Your task to perform on an android device: move an email to a new category in the gmail app Image 0: 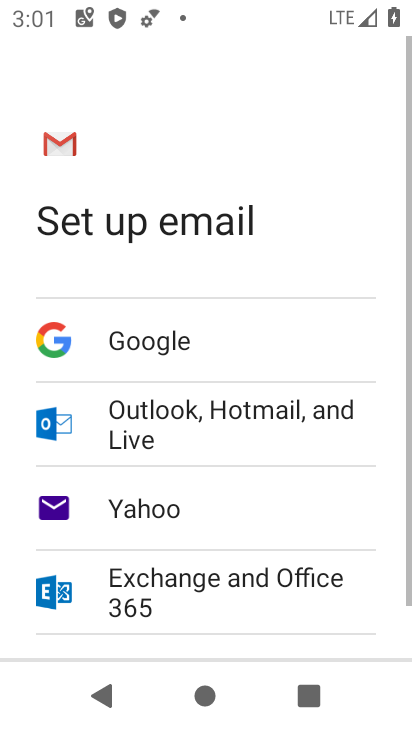
Step 0: press back button
Your task to perform on an android device: move an email to a new category in the gmail app Image 1: 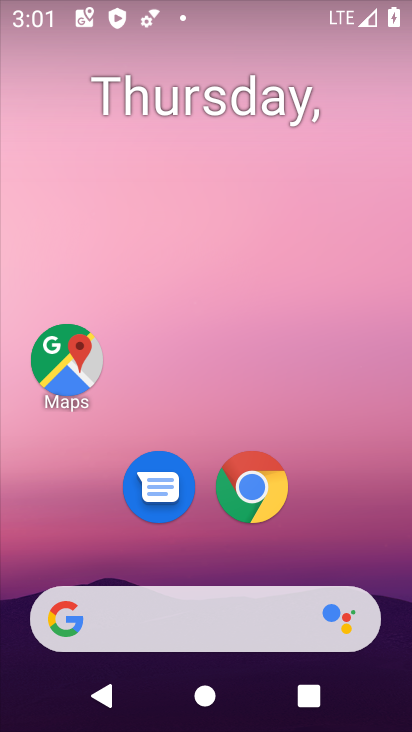
Step 1: drag from (390, 356) to (369, 58)
Your task to perform on an android device: move an email to a new category in the gmail app Image 2: 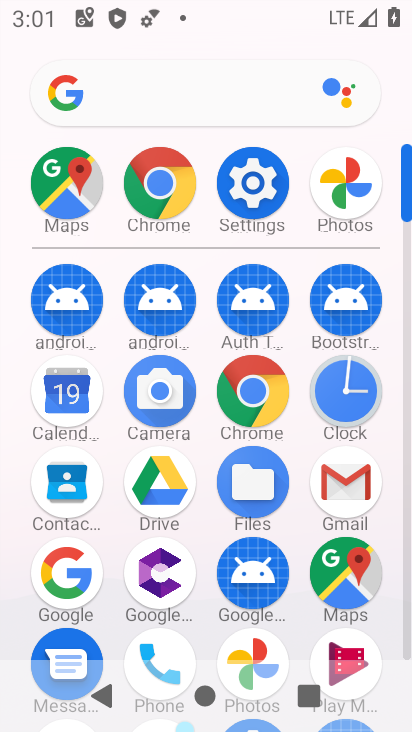
Step 2: click (360, 489)
Your task to perform on an android device: move an email to a new category in the gmail app Image 3: 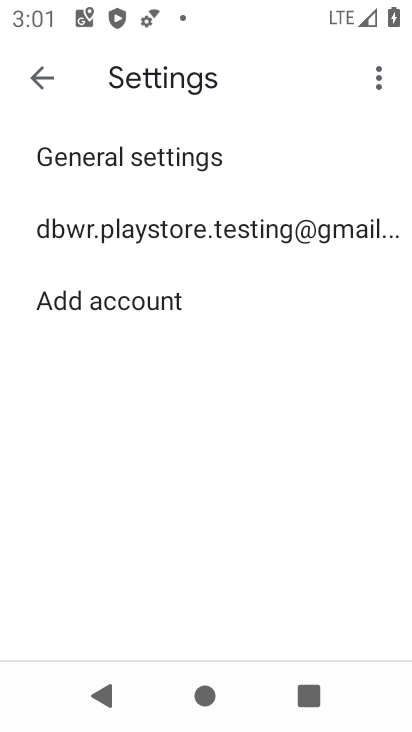
Step 3: click (101, 222)
Your task to perform on an android device: move an email to a new category in the gmail app Image 4: 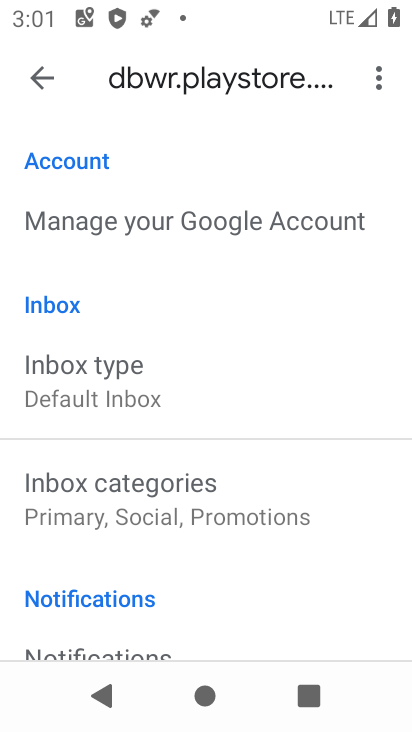
Step 4: click (21, 75)
Your task to perform on an android device: move an email to a new category in the gmail app Image 5: 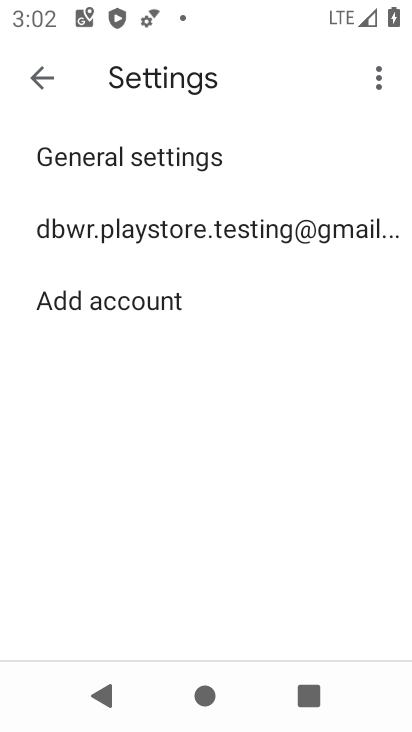
Step 5: click (21, 75)
Your task to perform on an android device: move an email to a new category in the gmail app Image 6: 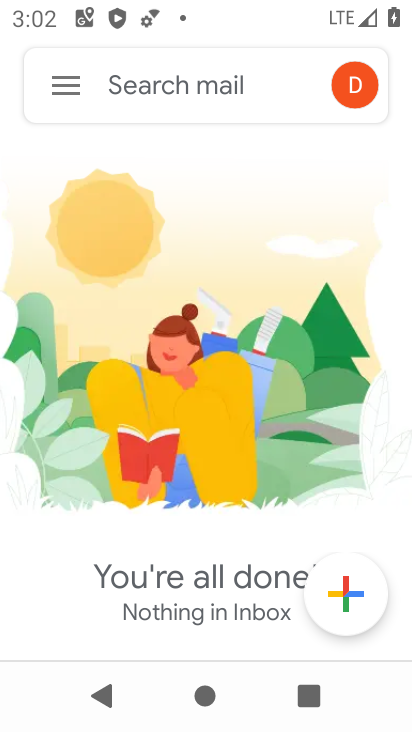
Step 6: click (39, 71)
Your task to perform on an android device: move an email to a new category in the gmail app Image 7: 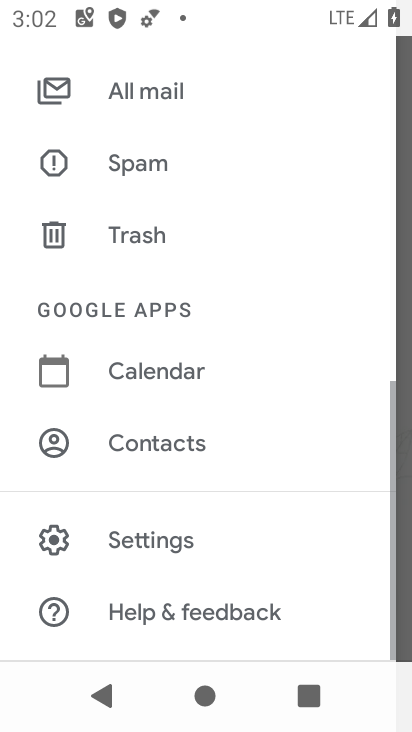
Step 7: click (105, 110)
Your task to perform on an android device: move an email to a new category in the gmail app Image 8: 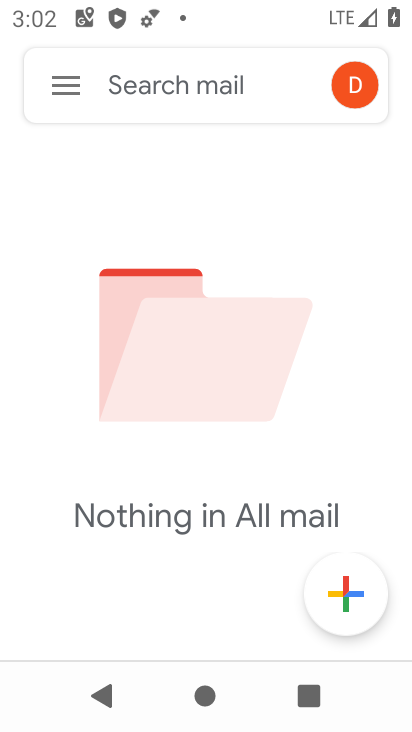
Step 8: task complete